Your task to perform on an android device: Open the Play Movies app and select the watchlist tab. Image 0: 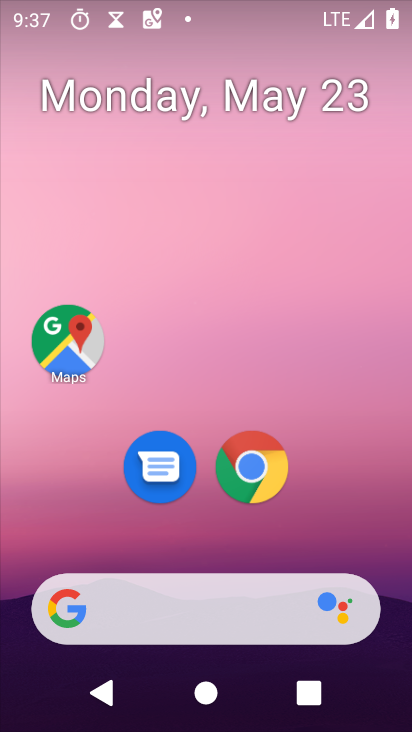
Step 0: drag from (274, 538) to (152, 10)
Your task to perform on an android device: Open the Play Movies app and select the watchlist tab. Image 1: 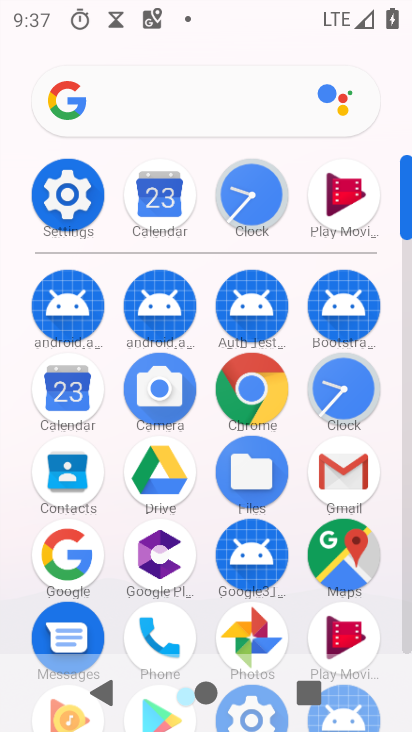
Step 1: click (345, 635)
Your task to perform on an android device: Open the Play Movies app and select the watchlist tab. Image 2: 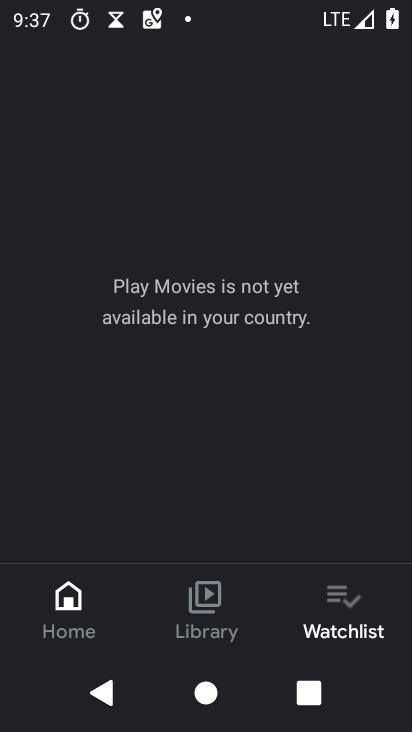
Step 2: task complete